Your task to perform on an android device: Search for sushi restaurants on Maps Image 0: 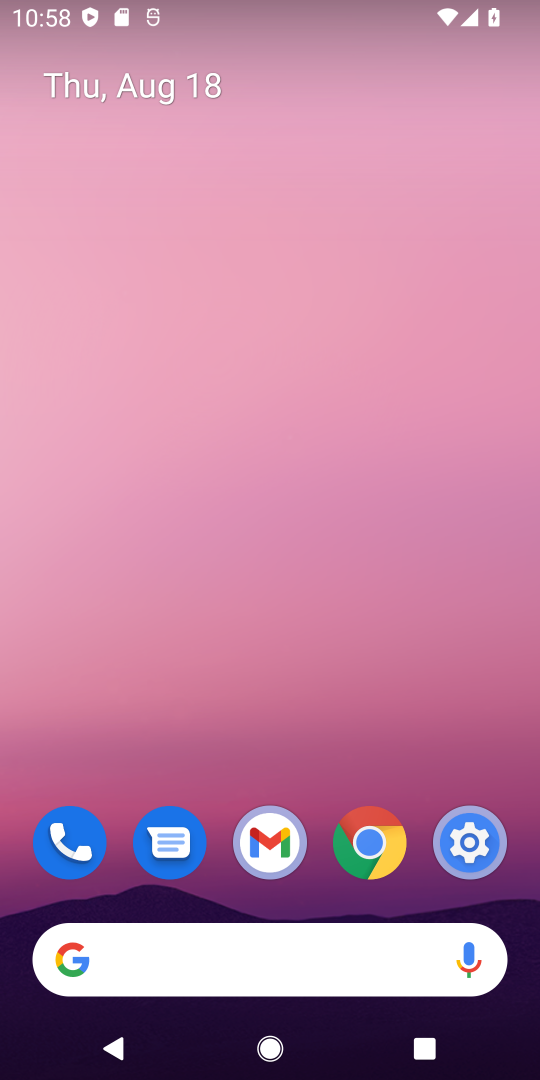
Step 0: drag from (223, 884) to (279, 114)
Your task to perform on an android device: Search for sushi restaurants on Maps Image 1: 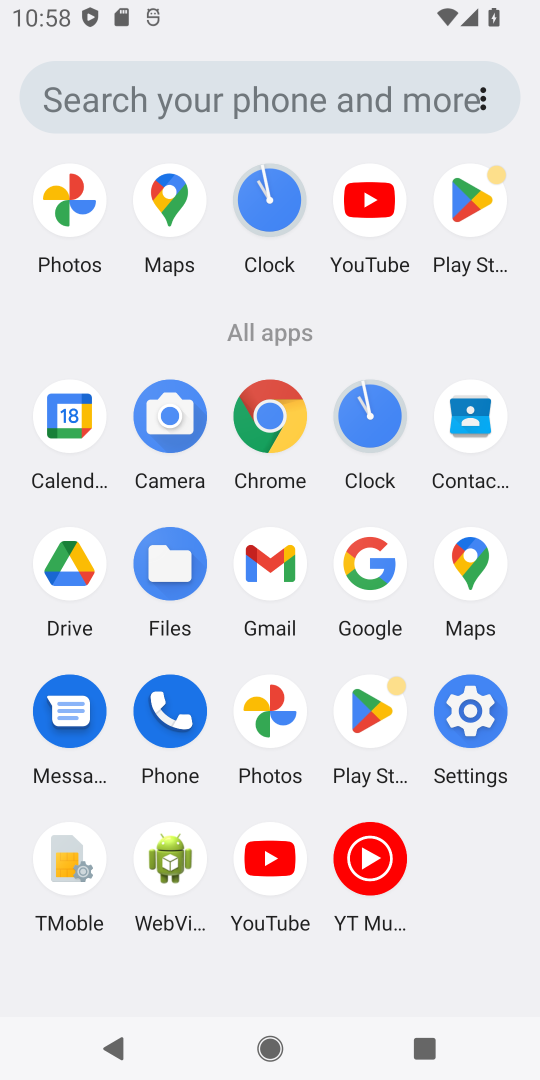
Step 1: click (170, 242)
Your task to perform on an android device: Search for sushi restaurants on Maps Image 2: 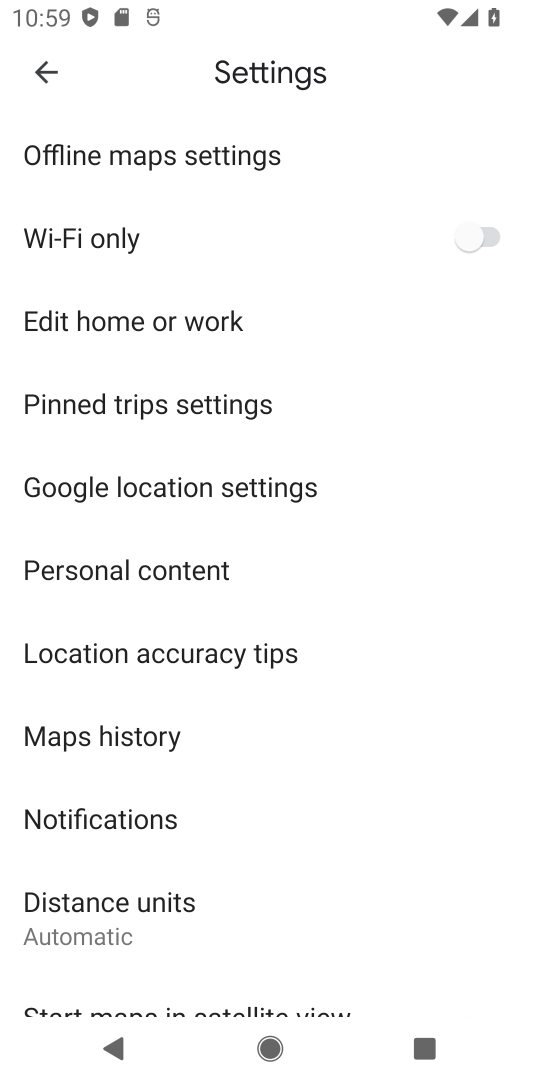
Step 2: click (40, 67)
Your task to perform on an android device: Search for sushi restaurants on Maps Image 3: 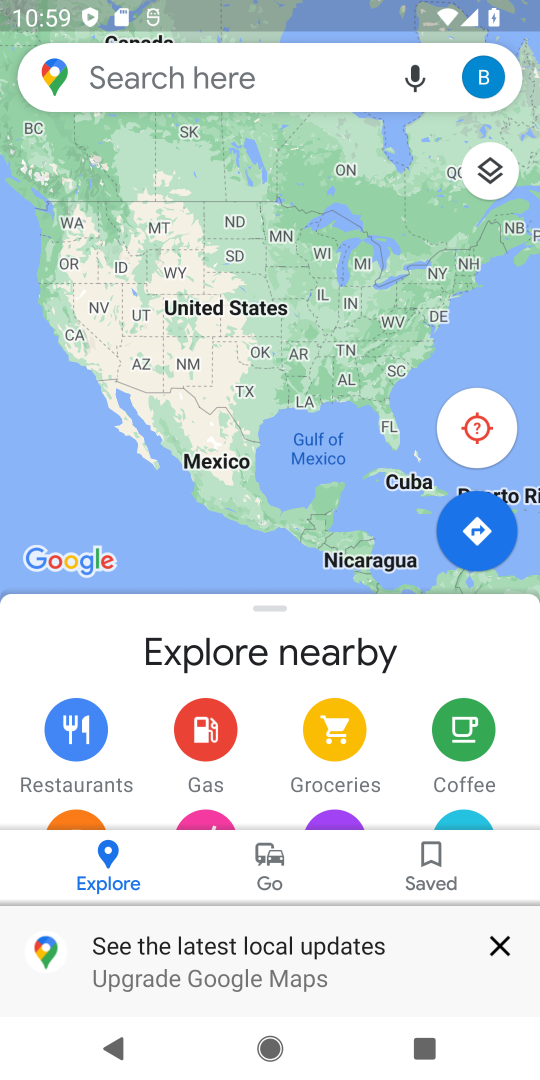
Step 3: click (241, 72)
Your task to perform on an android device: Search for sushi restaurants on Maps Image 4: 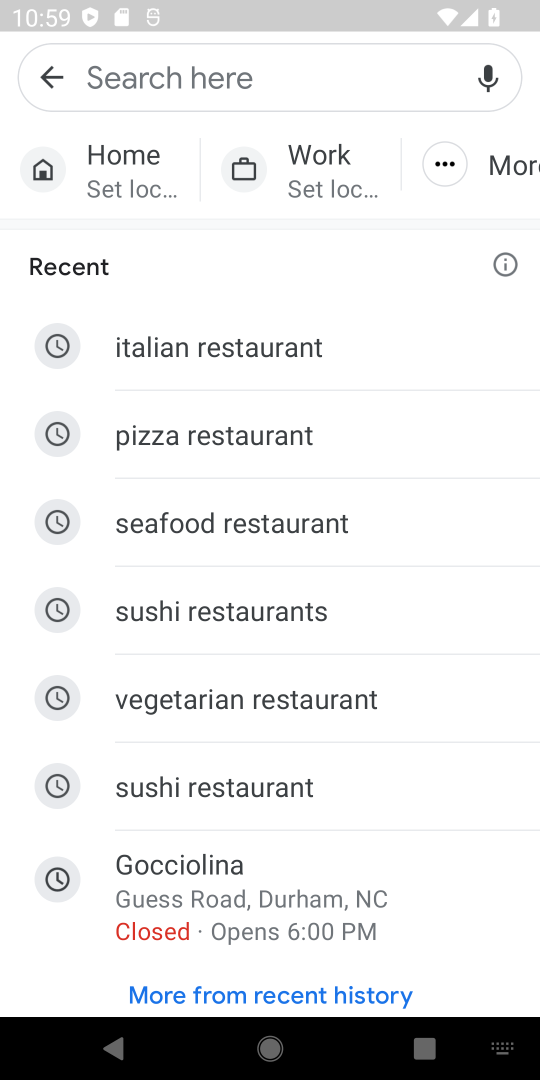
Step 4: click (352, 622)
Your task to perform on an android device: Search for sushi restaurants on Maps Image 5: 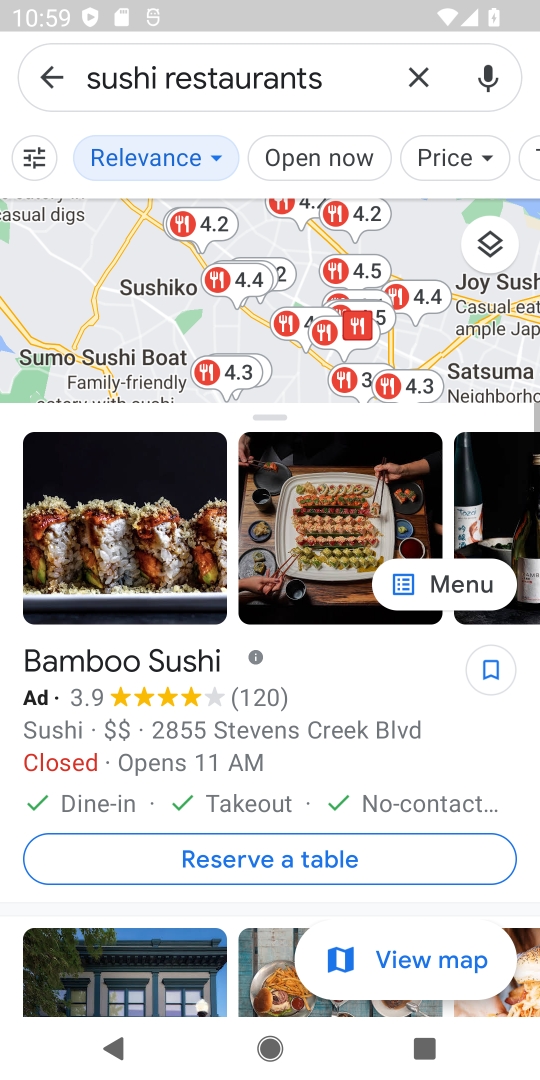
Step 5: task complete